Your task to perform on an android device: turn on notifications settings in the gmail app Image 0: 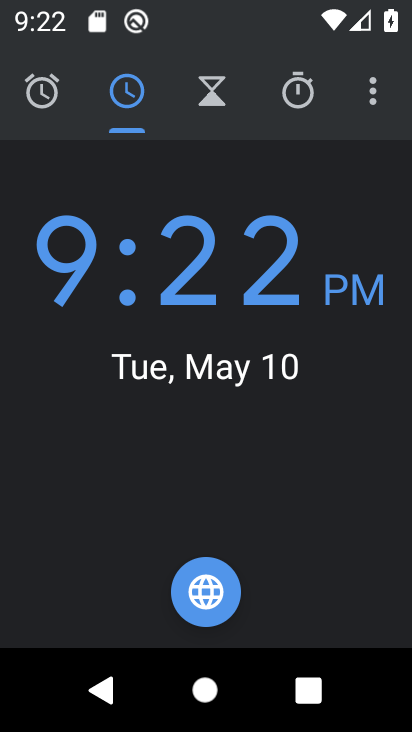
Step 0: press home button
Your task to perform on an android device: turn on notifications settings in the gmail app Image 1: 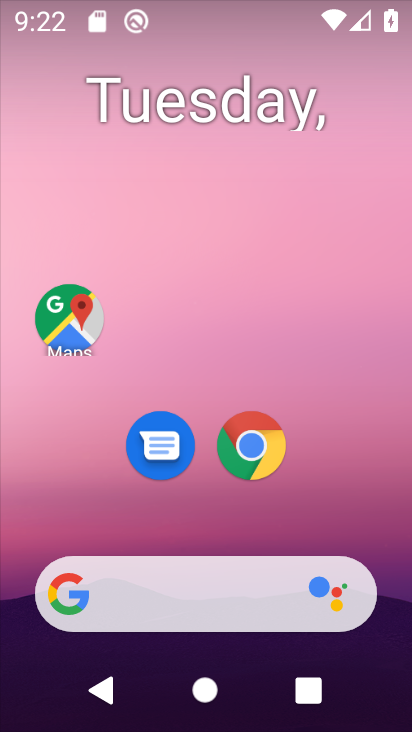
Step 1: drag from (192, 543) to (236, 4)
Your task to perform on an android device: turn on notifications settings in the gmail app Image 2: 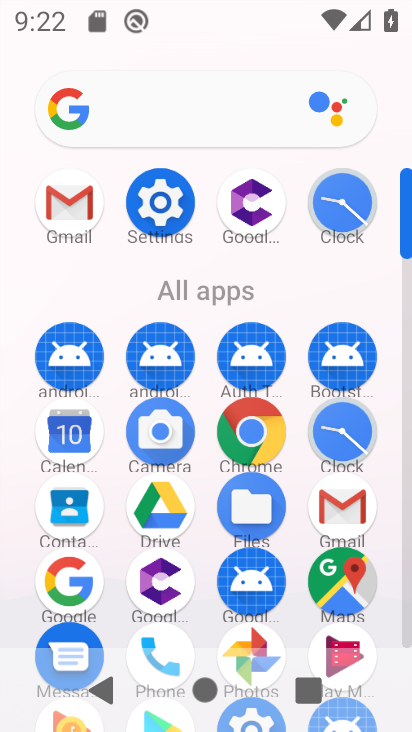
Step 2: click (57, 198)
Your task to perform on an android device: turn on notifications settings in the gmail app Image 3: 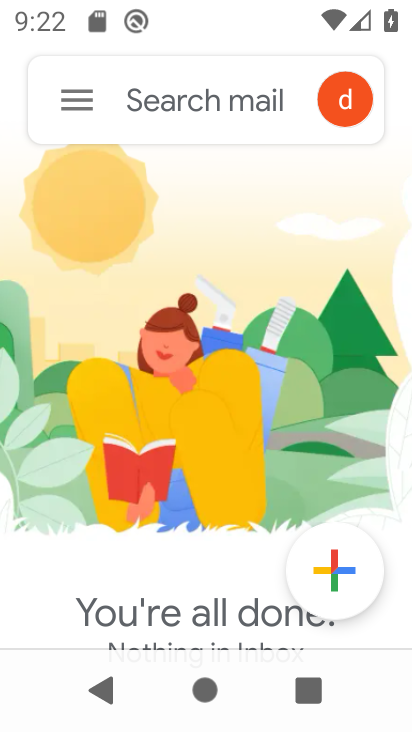
Step 3: click (74, 109)
Your task to perform on an android device: turn on notifications settings in the gmail app Image 4: 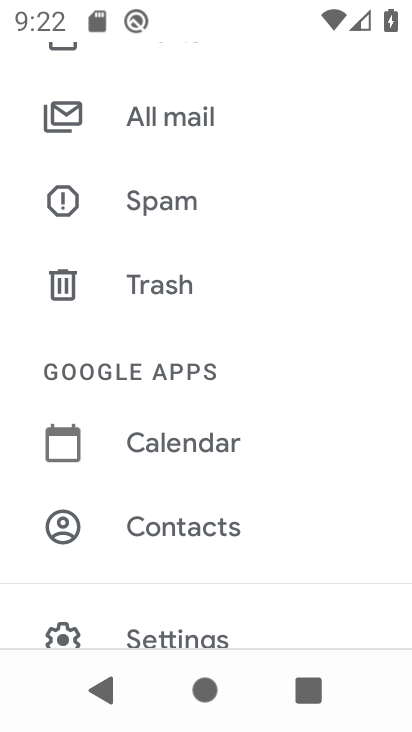
Step 4: click (156, 626)
Your task to perform on an android device: turn on notifications settings in the gmail app Image 5: 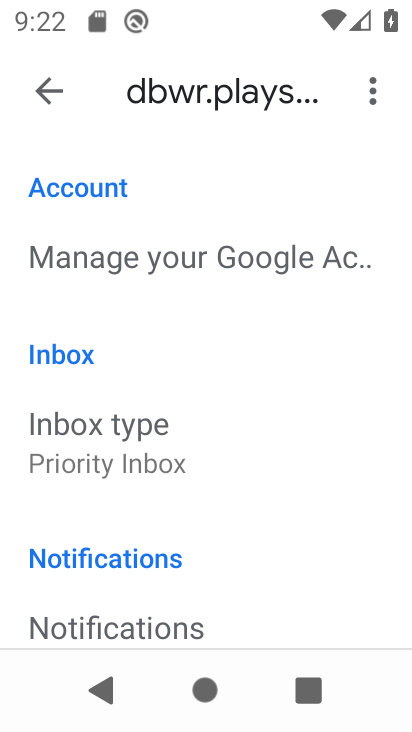
Step 5: click (158, 619)
Your task to perform on an android device: turn on notifications settings in the gmail app Image 6: 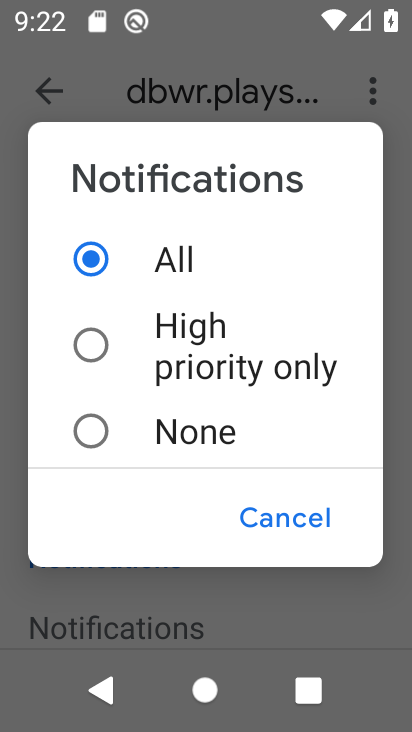
Step 6: task complete